Your task to perform on an android device: show emergency info Image 0: 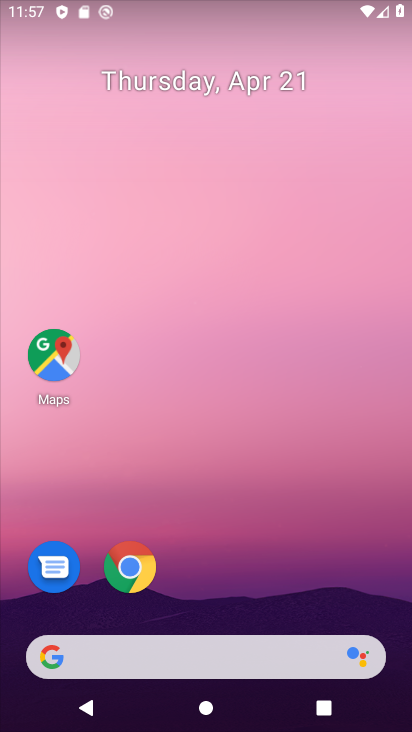
Step 0: drag from (217, 514) to (231, 63)
Your task to perform on an android device: show emergency info Image 1: 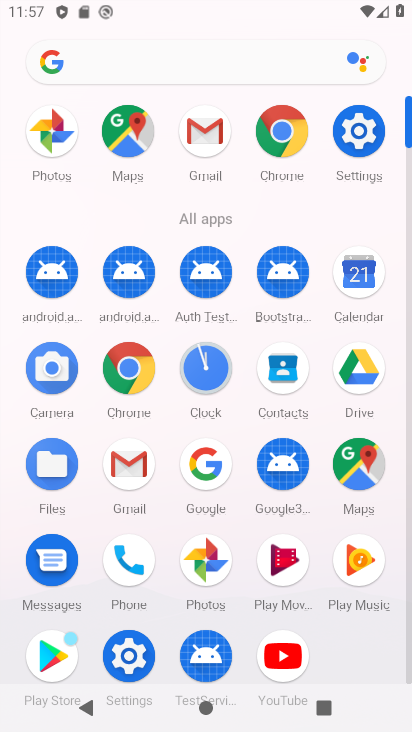
Step 1: click (366, 138)
Your task to perform on an android device: show emergency info Image 2: 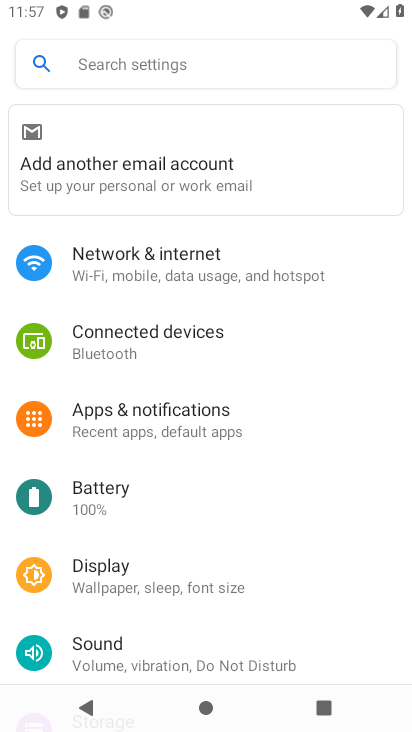
Step 2: click (153, 68)
Your task to perform on an android device: show emergency info Image 3: 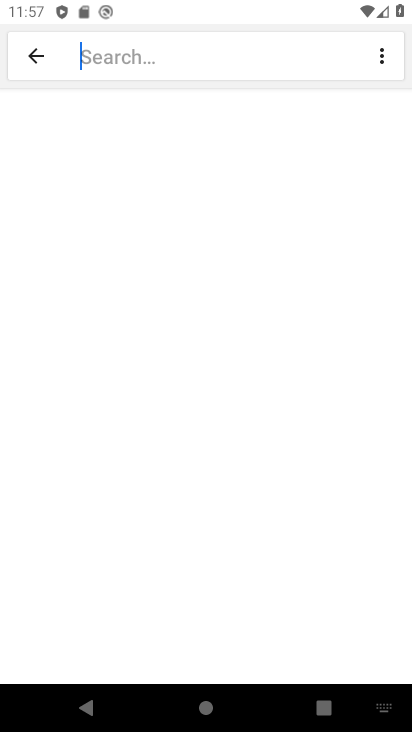
Step 3: type "emergency info"
Your task to perform on an android device: show emergency info Image 4: 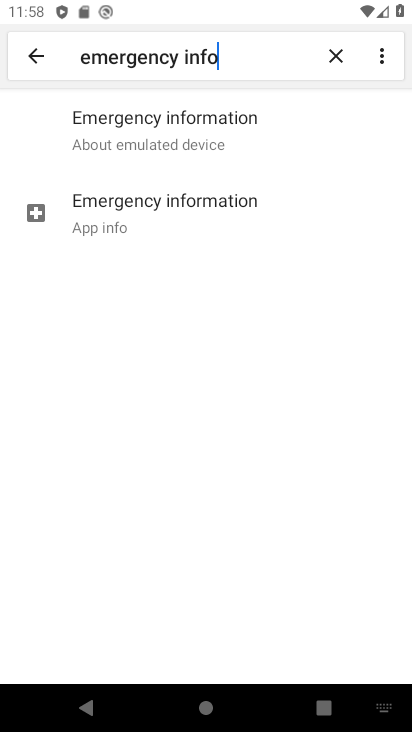
Step 4: click (172, 213)
Your task to perform on an android device: show emergency info Image 5: 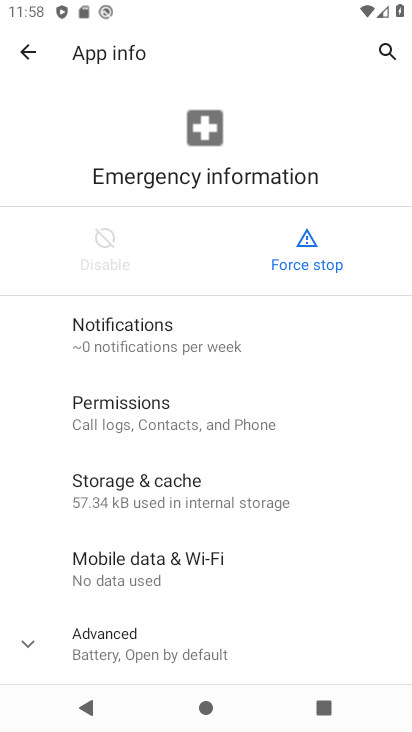
Step 5: task complete